Your task to perform on an android device: open sync settings in chrome Image 0: 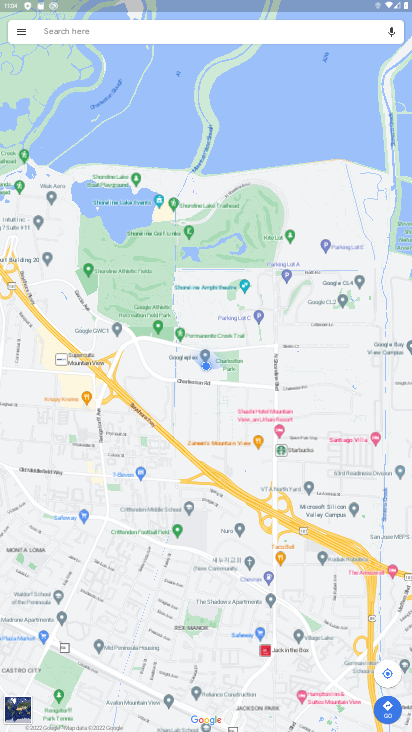
Step 0: press home button
Your task to perform on an android device: open sync settings in chrome Image 1: 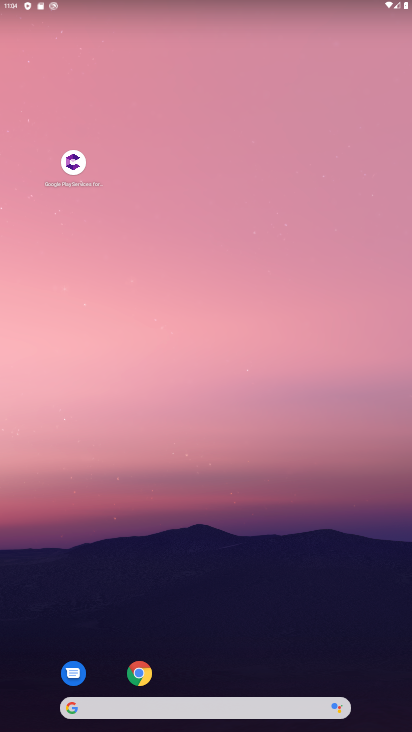
Step 1: click (130, 669)
Your task to perform on an android device: open sync settings in chrome Image 2: 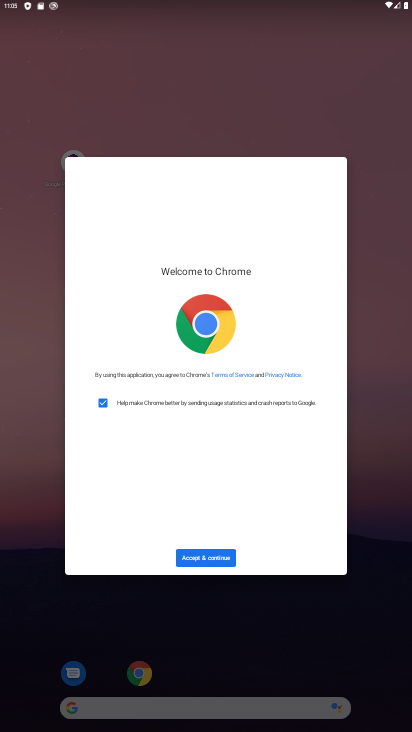
Step 2: click (222, 555)
Your task to perform on an android device: open sync settings in chrome Image 3: 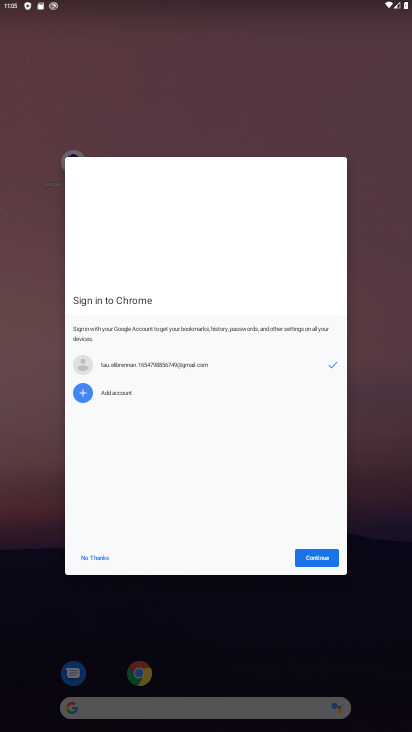
Step 3: click (305, 555)
Your task to perform on an android device: open sync settings in chrome Image 4: 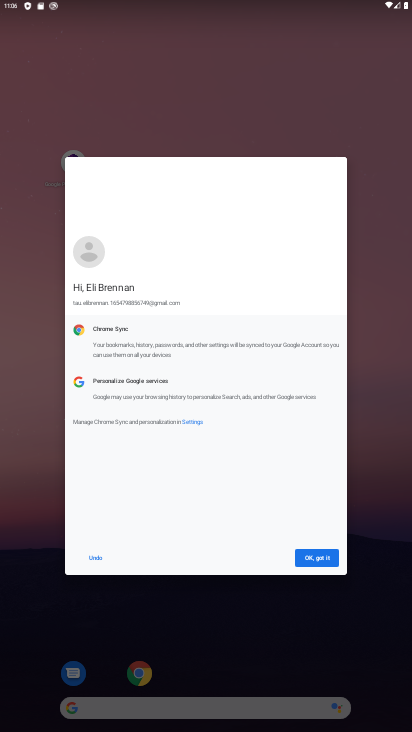
Step 4: click (318, 570)
Your task to perform on an android device: open sync settings in chrome Image 5: 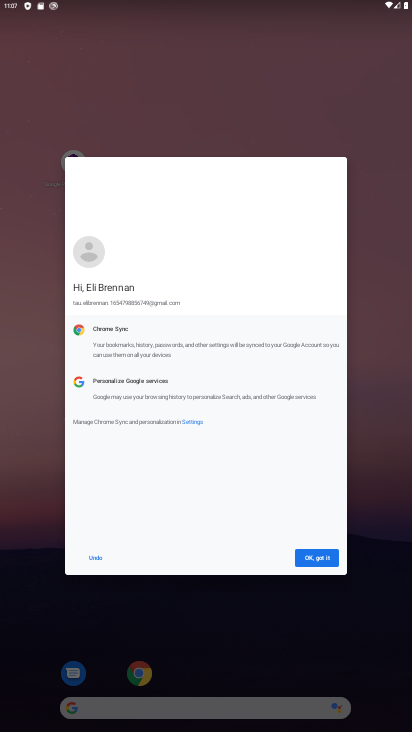
Step 5: click (318, 562)
Your task to perform on an android device: open sync settings in chrome Image 6: 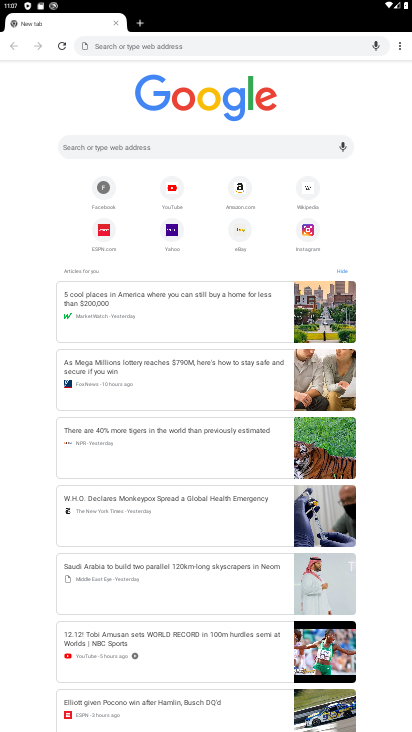
Step 6: click (401, 44)
Your task to perform on an android device: open sync settings in chrome Image 7: 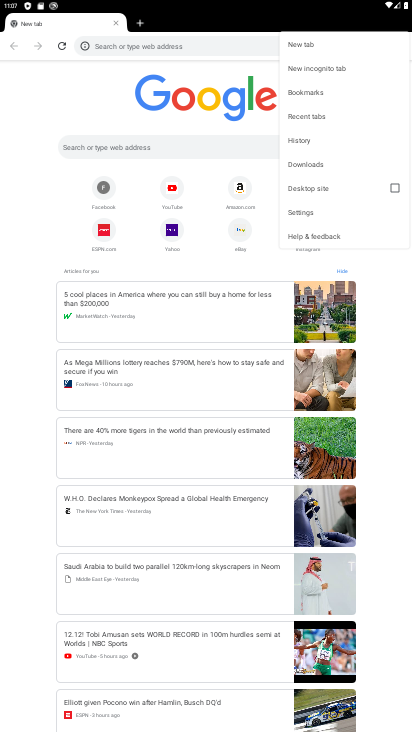
Step 7: click (316, 217)
Your task to perform on an android device: open sync settings in chrome Image 8: 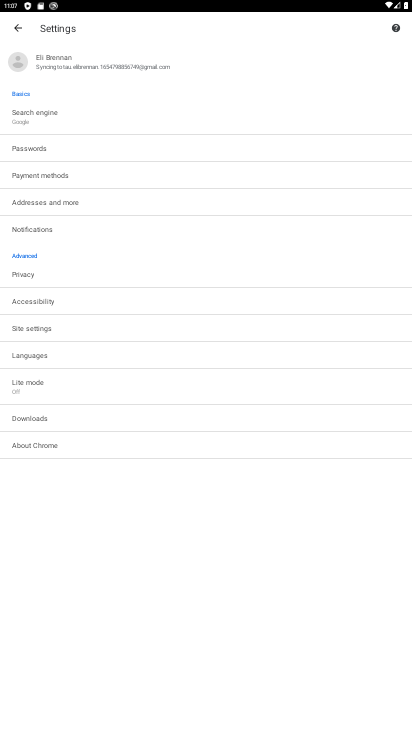
Step 8: click (164, 64)
Your task to perform on an android device: open sync settings in chrome Image 9: 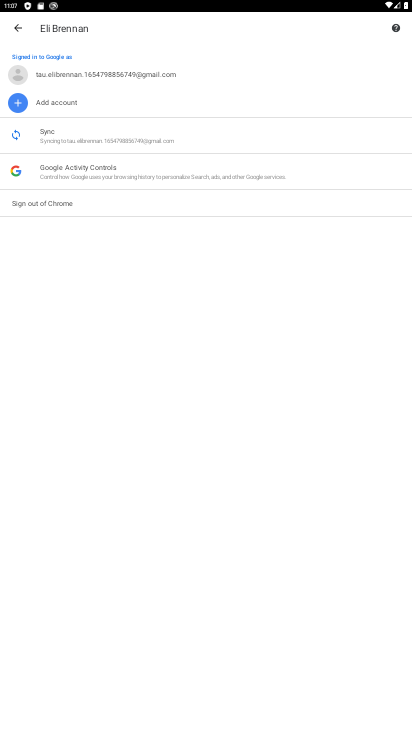
Step 9: task complete